Your task to perform on an android device: Is it going to rain today? Image 0: 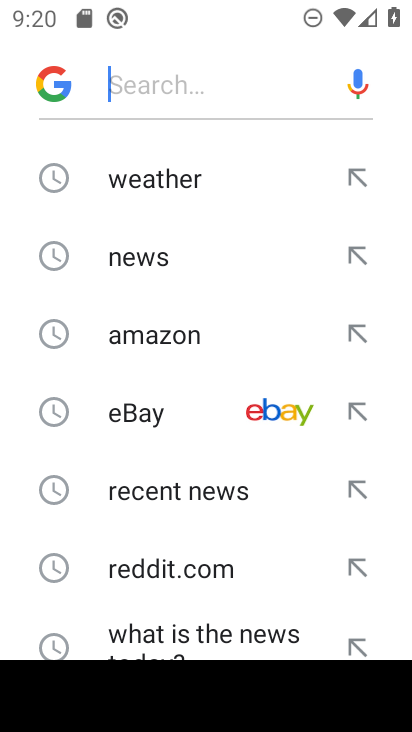
Step 0: press home button
Your task to perform on an android device: Is it going to rain today? Image 1: 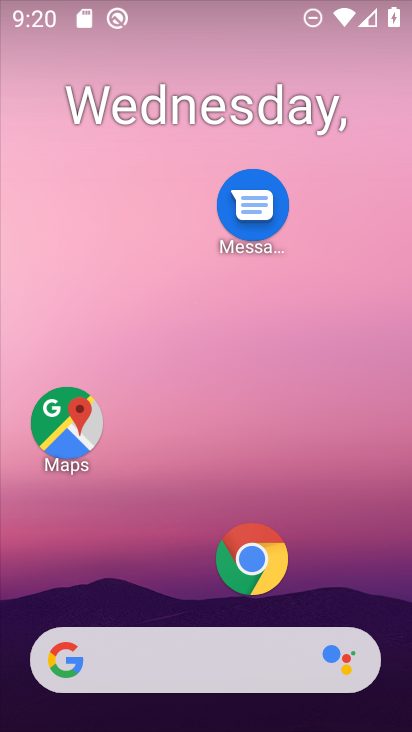
Step 1: drag from (221, 572) to (233, 53)
Your task to perform on an android device: Is it going to rain today? Image 2: 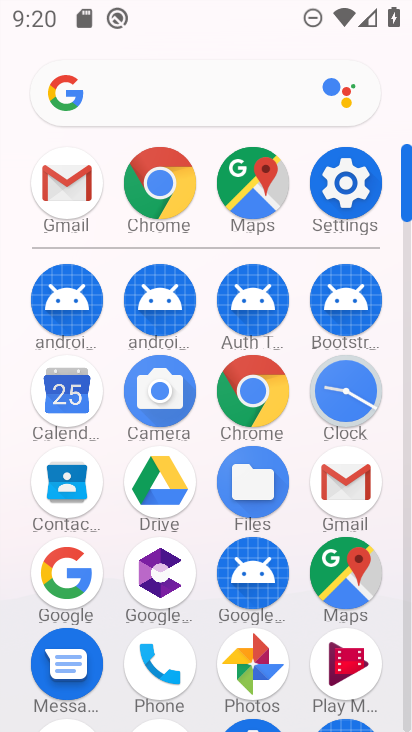
Step 2: click (71, 583)
Your task to perform on an android device: Is it going to rain today? Image 3: 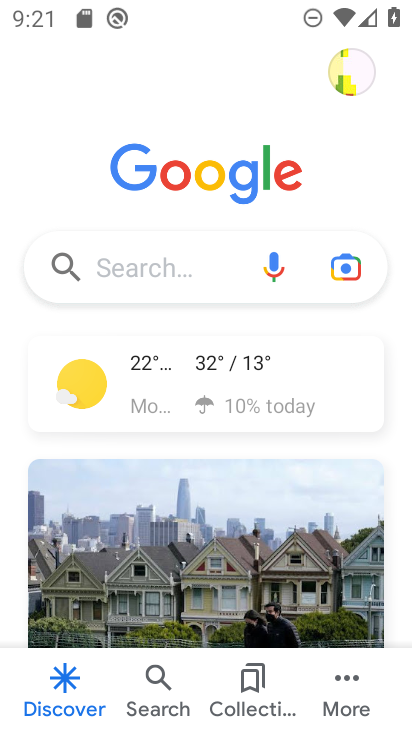
Step 3: click (171, 268)
Your task to perform on an android device: Is it going to rain today? Image 4: 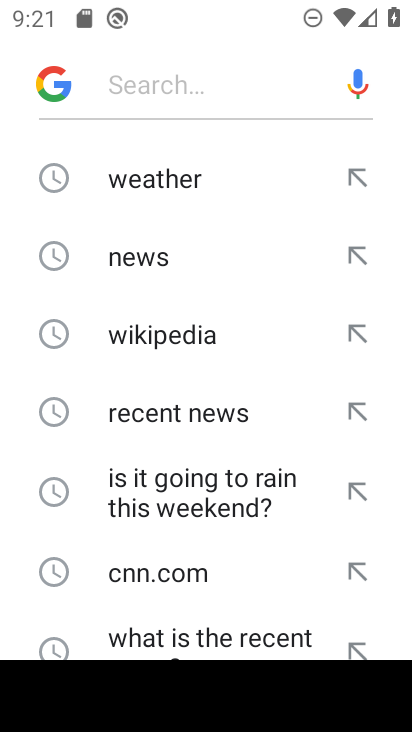
Step 4: click (184, 174)
Your task to perform on an android device: Is it going to rain today? Image 5: 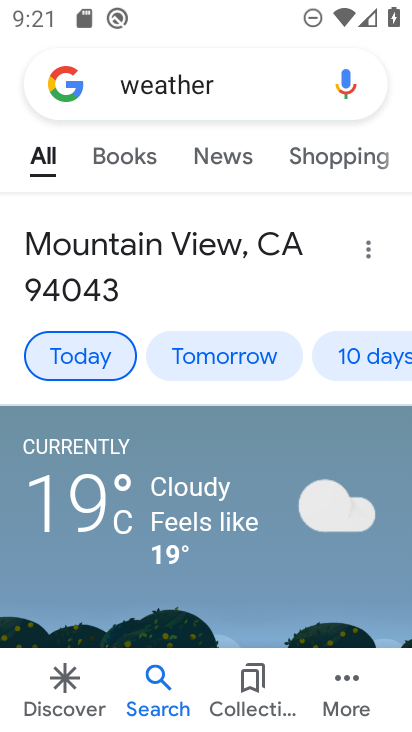
Step 5: task complete